Your task to perform on an android device: open a bookmark in the chrome app Image 0: 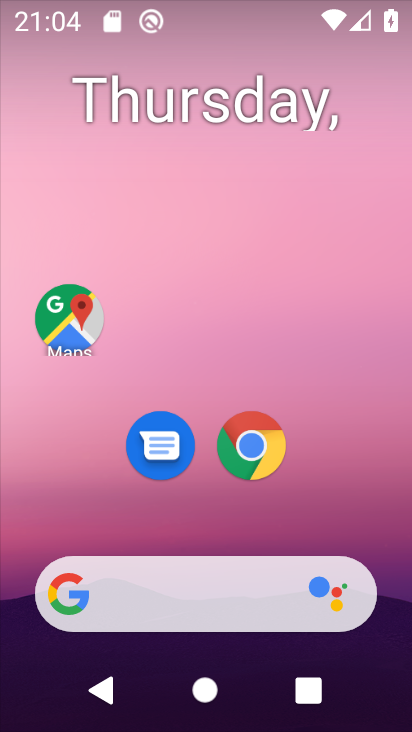
Step 0: click (263, 463)
Your task to perform on an android device: open a bookmark in the chrome app Image 1: 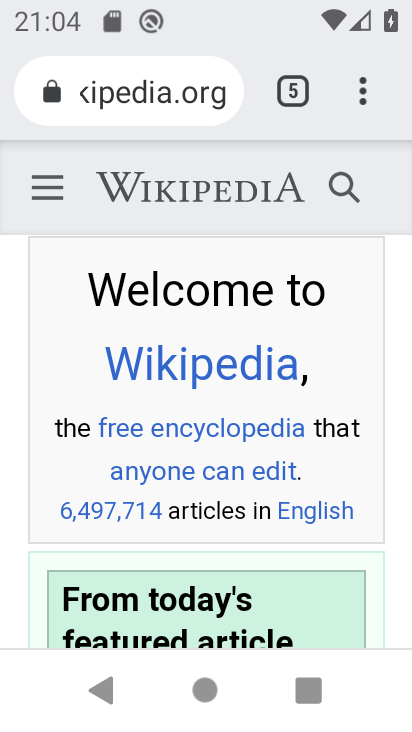
Step 1: click (364, 92)
Your task to perform on an android device: open a bookmark in the chrome app Image 2: 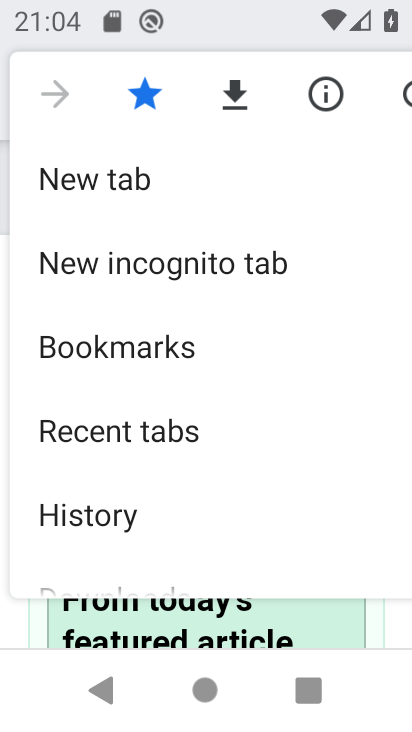
Step 2: click (101, 353)
Your task to perform on an android device: open a bookmark in the chrome app Image 3: 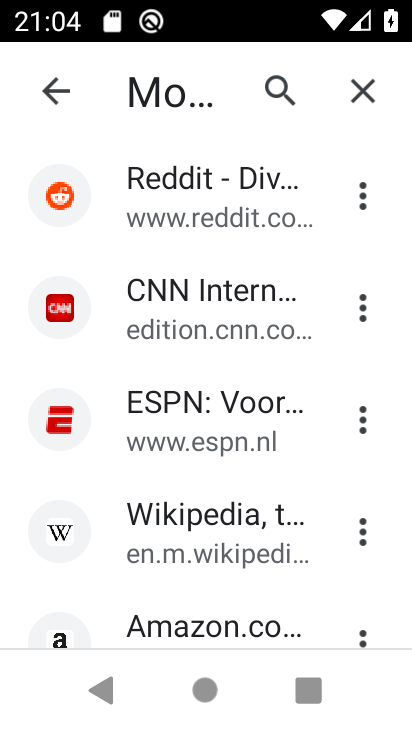
Step 3: task complete